Your task to perform on an android device: Open sound settings Image 0: 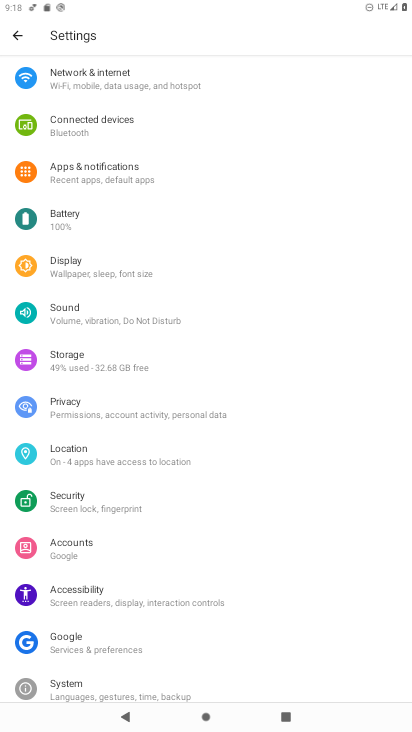
Step 0: click (91, 314)
Your task to perform on an android device: Open sound settings Image 1: 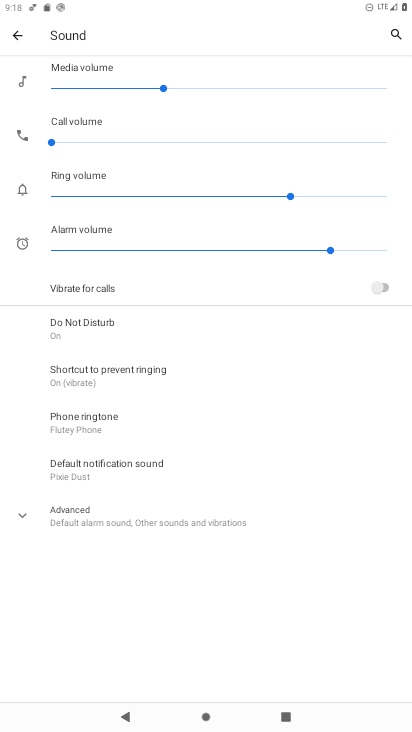
Step 1: task complete